Your task to perform on an android device: find photos in the google photos app Image 0: 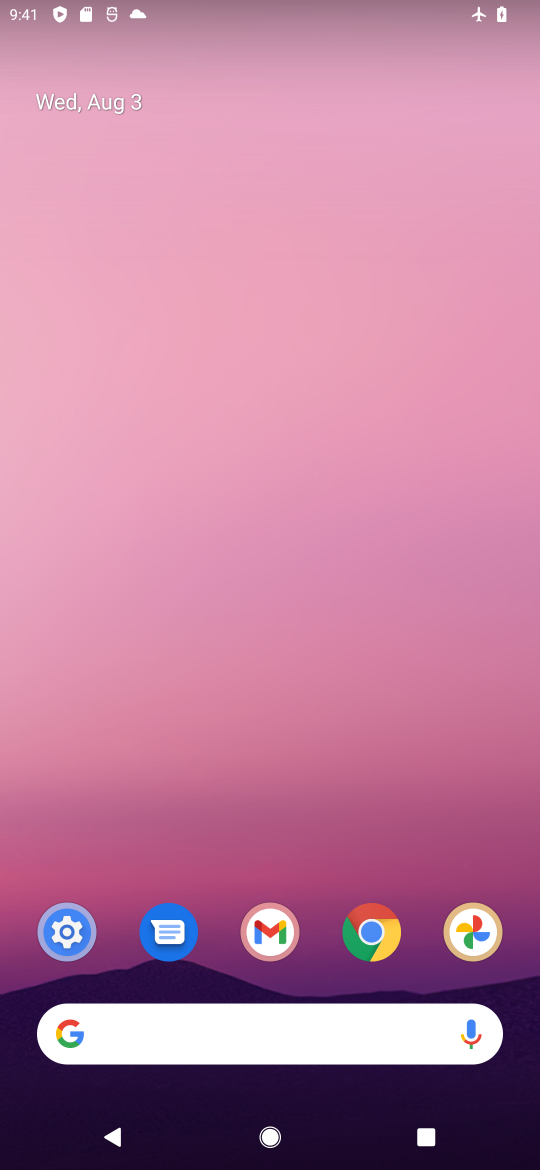
Step 0: drag from (486, 867) to (503, 37)
Your task to perform on an android device: find photos in the google photos app Image 1: 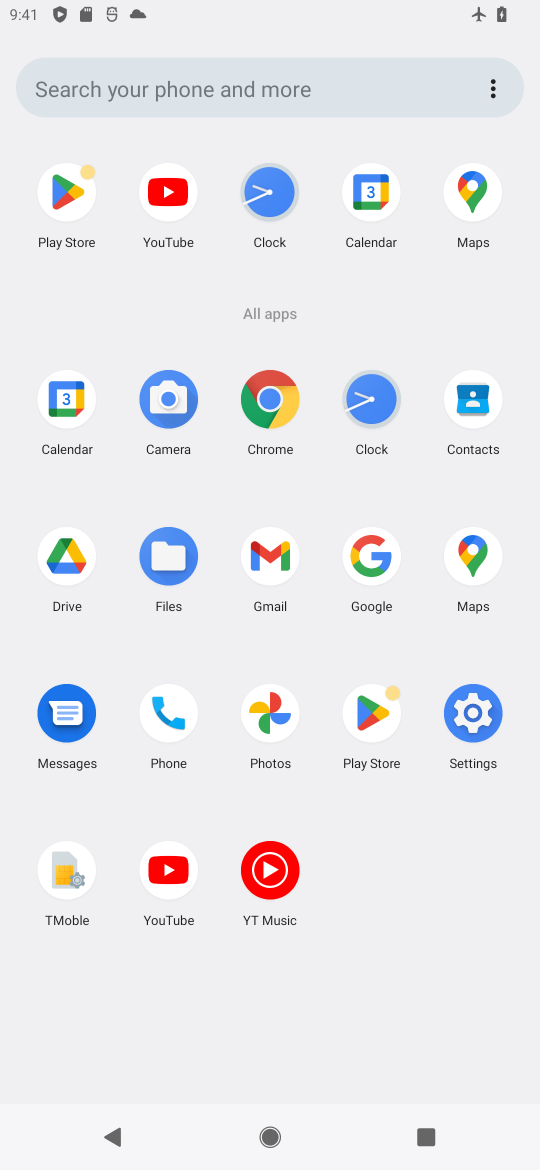
Step 1: click (272, 724)
Your task to perform on an android device: find photos in the google photos app Image 2: 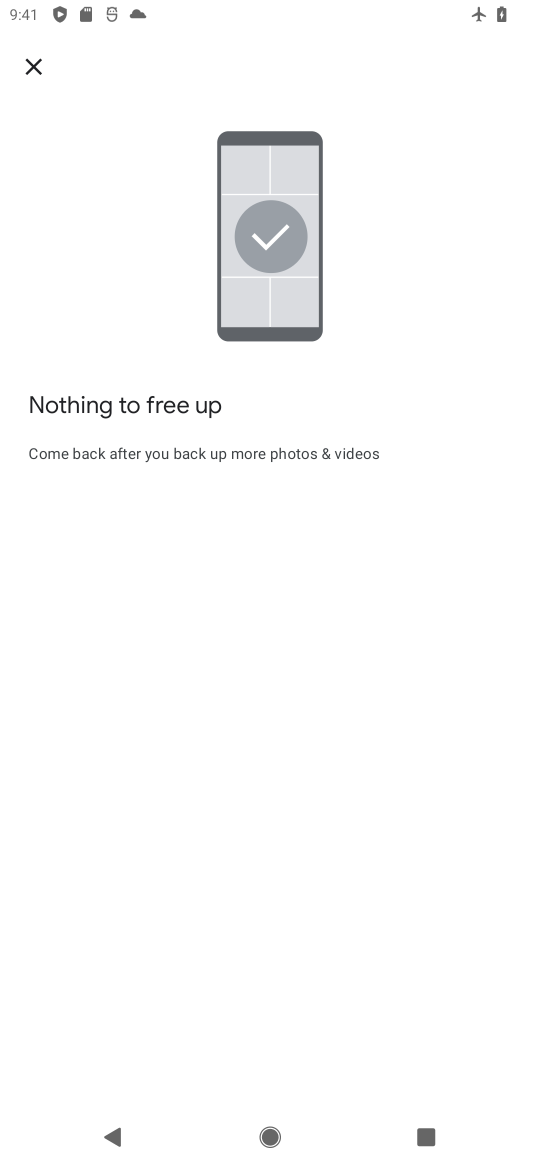
Step 2: click (36, 63)
Your task to perform on an android device: find photos in the google photos app Image 3: 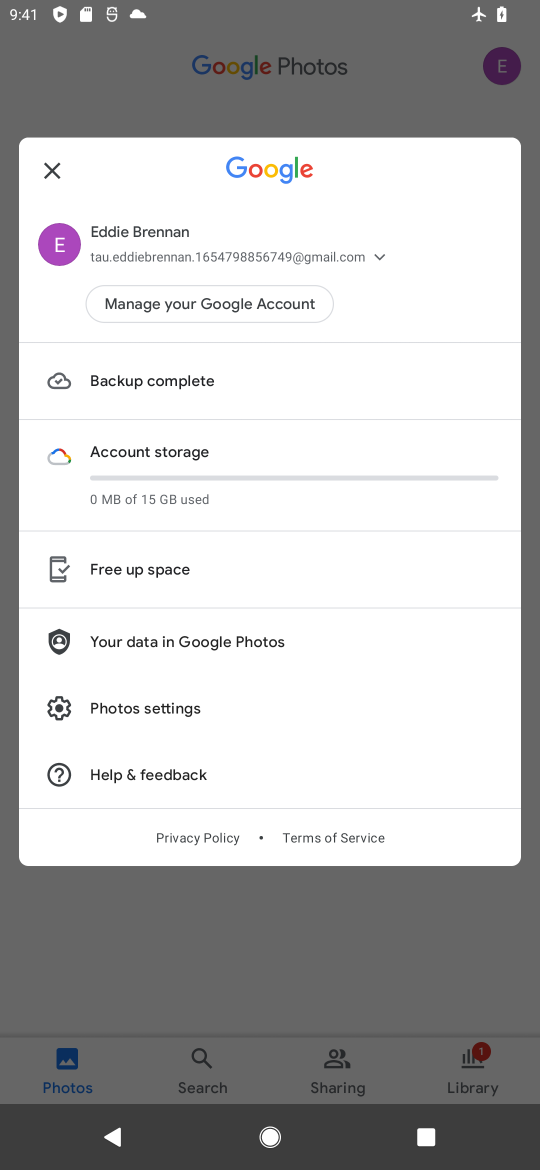
Step 3: click (153, 169)
Your task to perform on an android device: find photos in the google photos app Image 4: 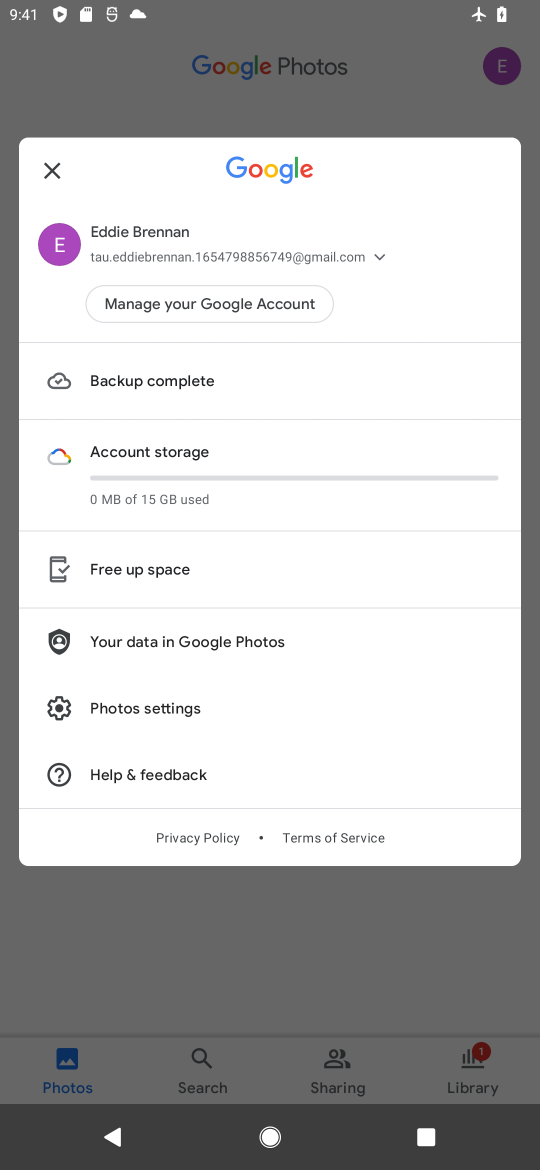
Step 4: click (55, 172)
Your task to perform on an android device: find photos in the google photos app Image 5: 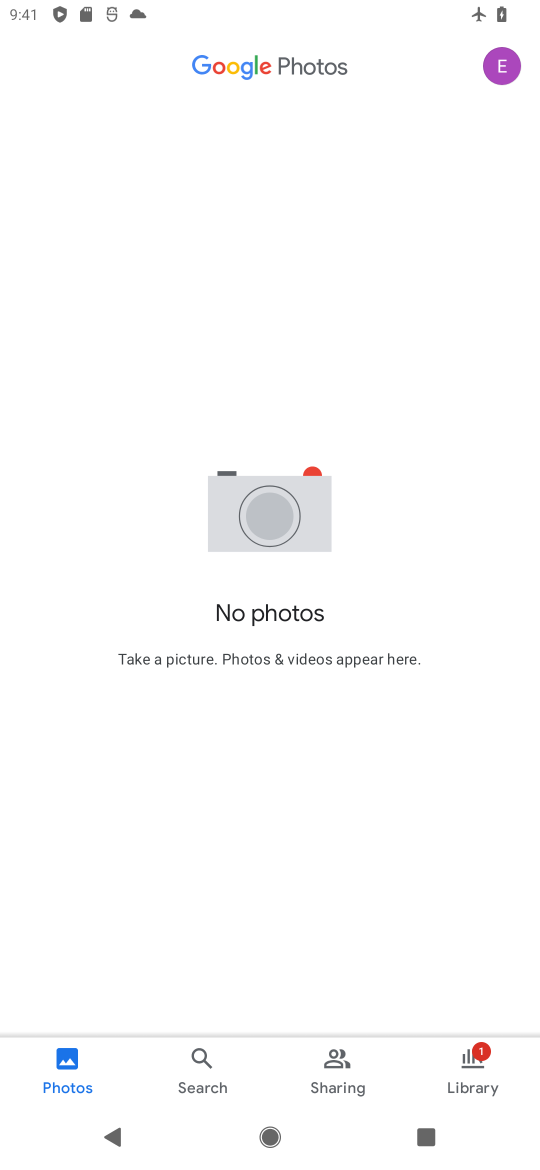
Step 5: task complete